Your task to perform on an android device: Toggle the flashlight Image 0: 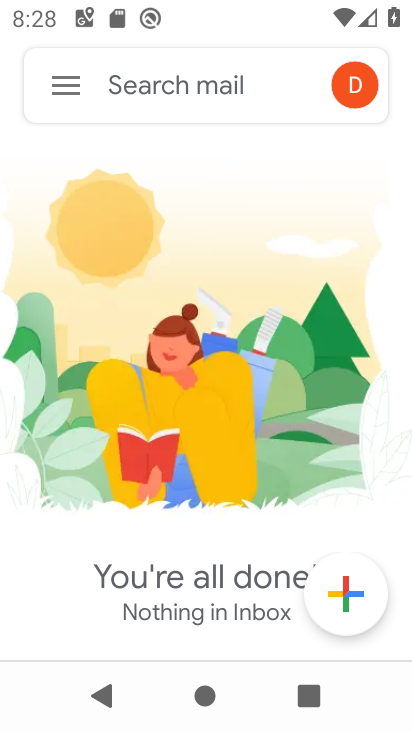
Step 0: press home button
Your task to perform on an android device: Toggle the flashlight Image 1: 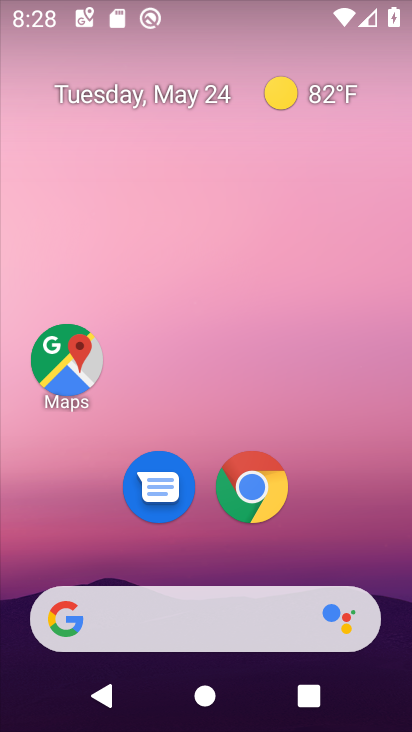
Step 1: drag from (380, 454) to (373, 107)
Your task to perform on an android device: Toggle the flashlight Image 2: 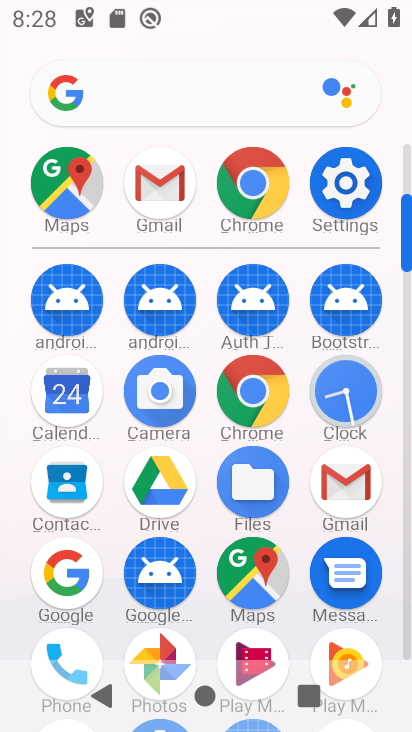
Step 2: click (334, 189)
Your task to perform on an android device: Toggle the flashlight Image 3: 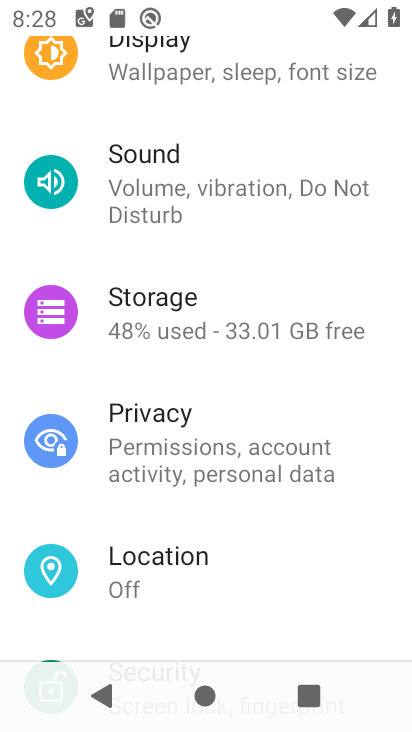
Step 3: drag from (273, 147) to (230, 491)
Your task to perform on an android device: Toggle the flashlight Image 4: 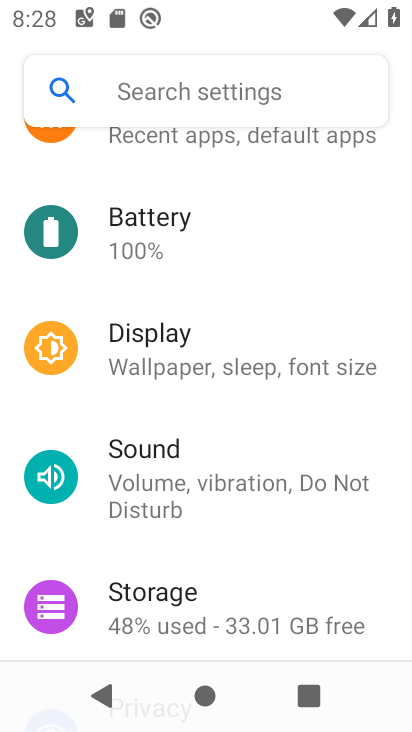
Step 4: click (218, 101)
Your task to perform on an android device: Toggle the flashlight Image 5: 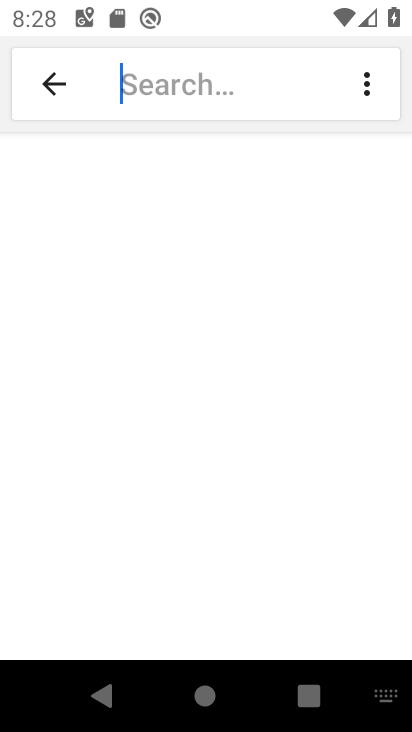
Step 5: type "flashlight"
Your task to perform on an android device: Toggle the flashlight Image 6: 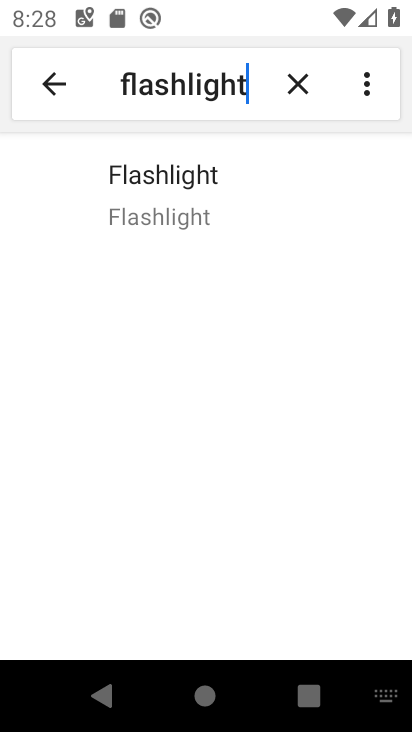
Step 6: click (251, 203)
Your task to perform on an android device: Toggle the flashlight Image 7: 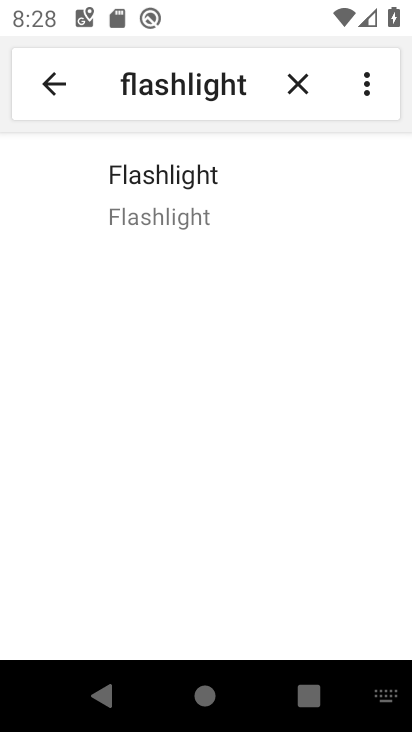
Step 7: task complete